Your task to perform on an android device: read, delete, or share a saved page in the chrome app Image 0: 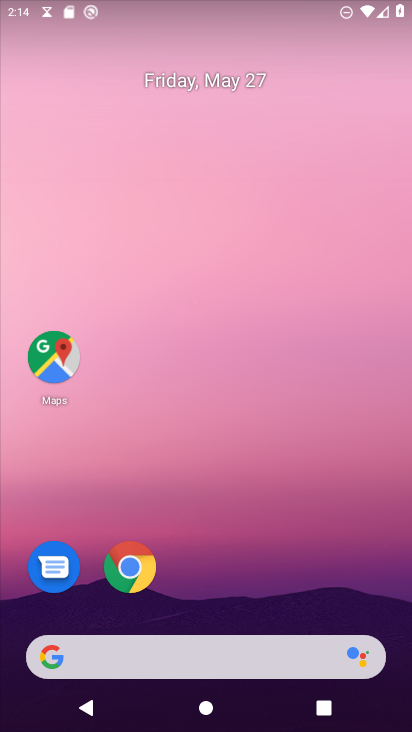
Step 0: click (129, 571)
Your task to perform on an android device: read, delete, or share a saved page in the chrome app Image 1: 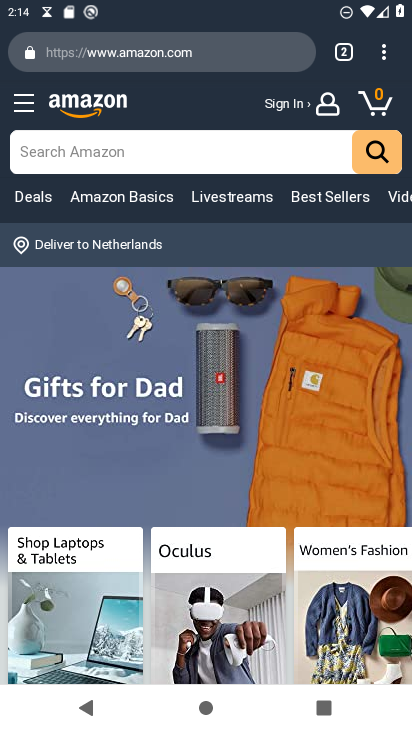
Step 1: click (383, 64)
Your task to perform on an android device: read, delete, or share a saved page in the chrome app Image 2: 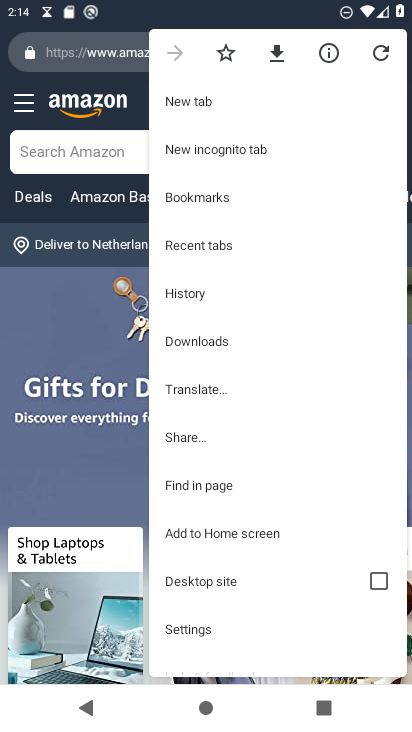
Step 2: click (224, 340)
Your task to perform on an android device: read, delete, or share a saved page in the chrome app Image 3: 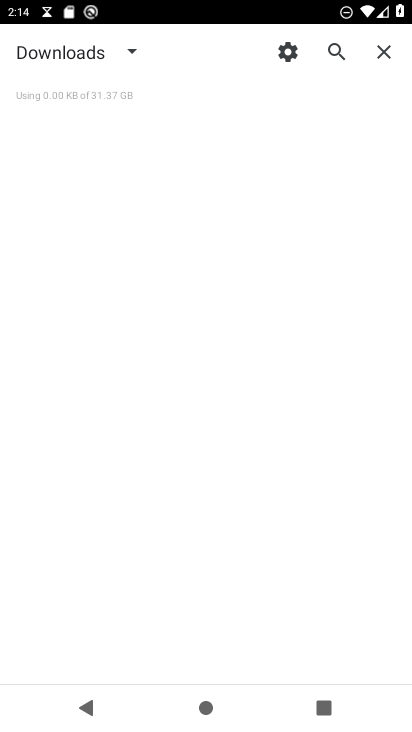
Step 3: click (123, 53)
Your task to perform on an android device: read, delete, or share a saved page in the chrome app Image 4: 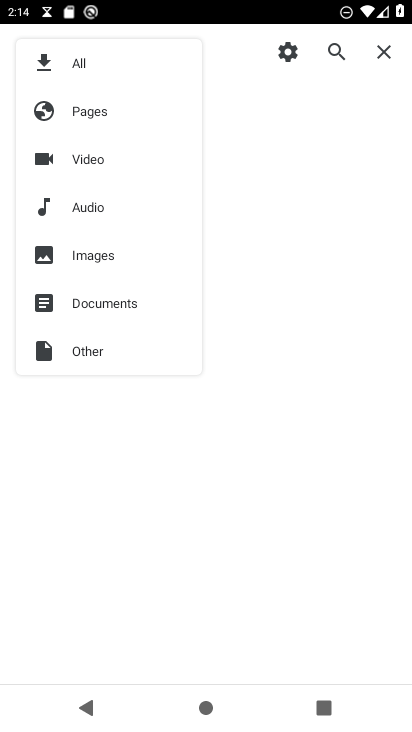
Step 4: click (103, 115)
Your task to perform on an android device: read, delete, or share a saved page in the chrome app Image 5: 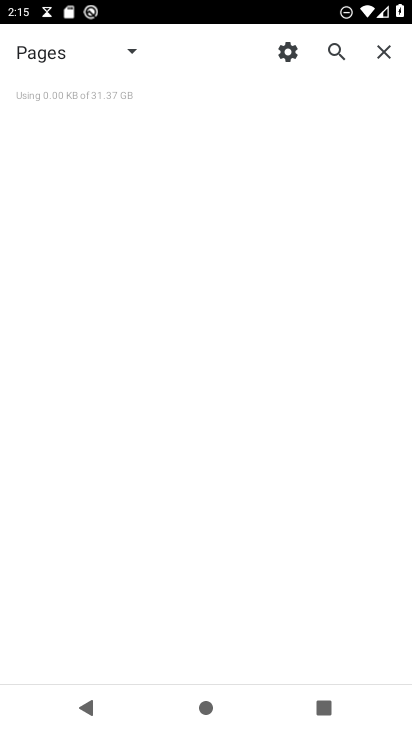
Step 5: task complete